Your task to perform on an android device: open the mobile data screen to see how much data has been used Image 0: 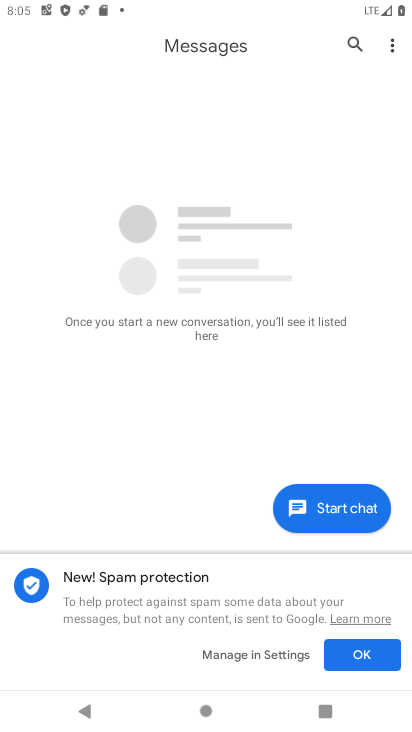
Step 0: press home button
Your task to perform on an android device: open the mobile data screen to see how much data has been used Image 1: 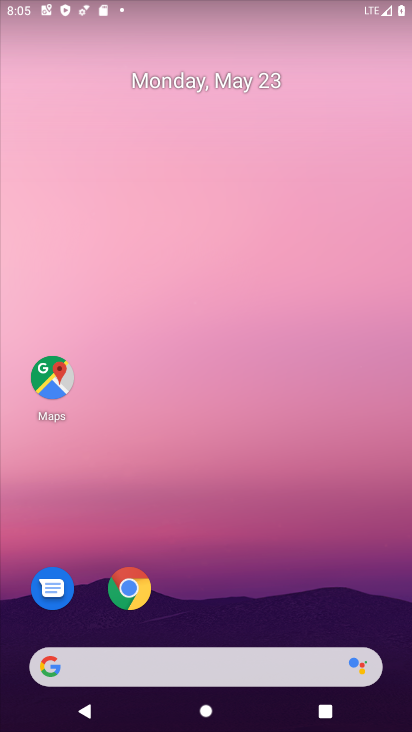
Step 1: drag from (409, 693) to (404, 182)
Your task to perform on an android device: open the mobile data screen to see how much data has been used Image 2: 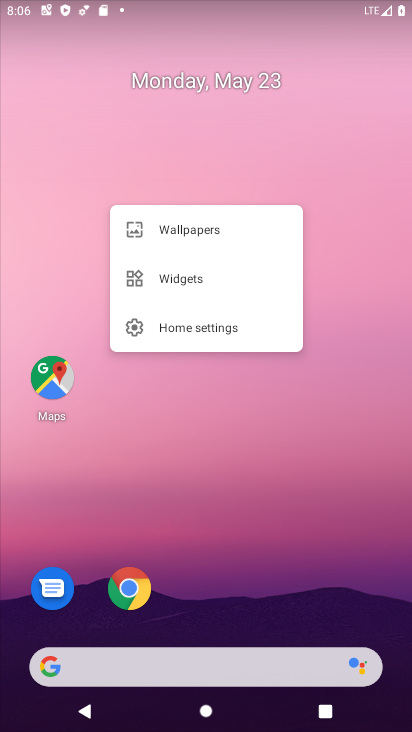
Step 2: click (386, 620)
Your task to perform on an android device: open the mobile data screen to see how much data has been used Image 3: 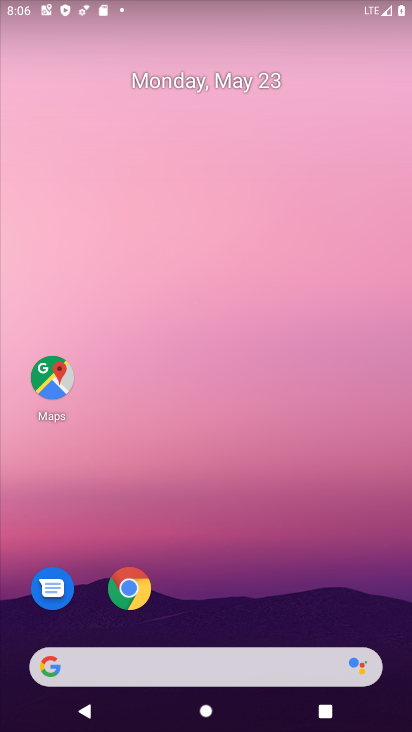
Step 3: drag from (399, 710) to (314, 90)
Your task to perform on an android device: open the mobile data screen to see how much data has been used Image 4: 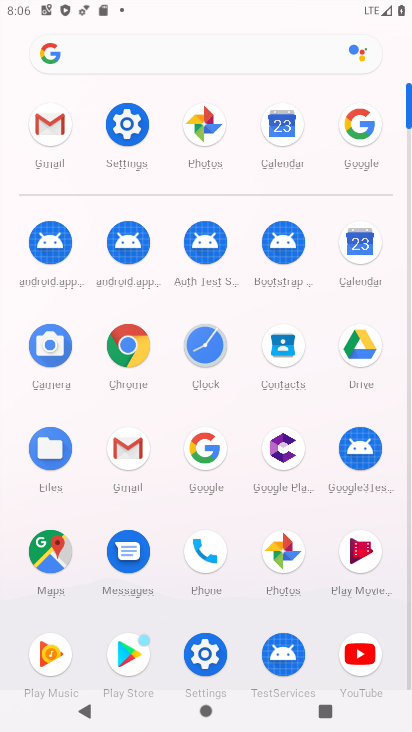
Step 4: click (125, 125)
Your task to perform on an android device: open the mobile data screen to see how much data has been used Image 5: 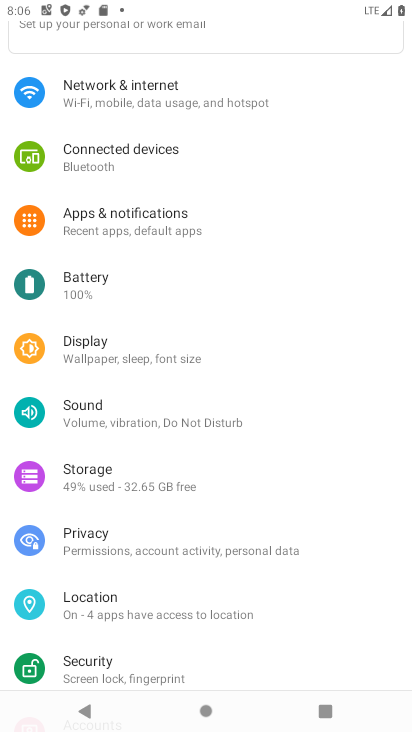
Step 5: click (104, 101)
Your task to perform on an android device: open the mobile data screen to see how much data has been used Image 6: 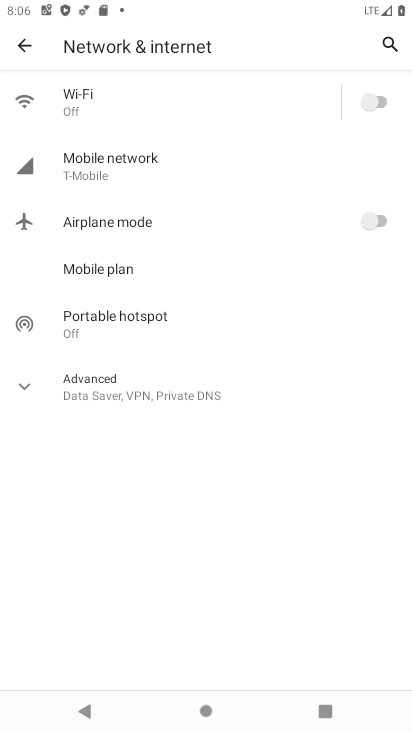
Step 6: click (106, 165)
Your task to perform on an android device: open the mobile data screen to see how much data has been used Image 7: 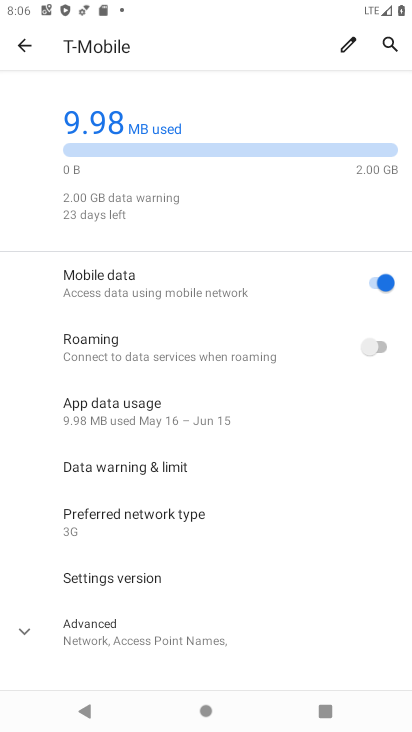
Step 7: task complete